Your task to perform on an android device: change the clock display to analog Image 0: 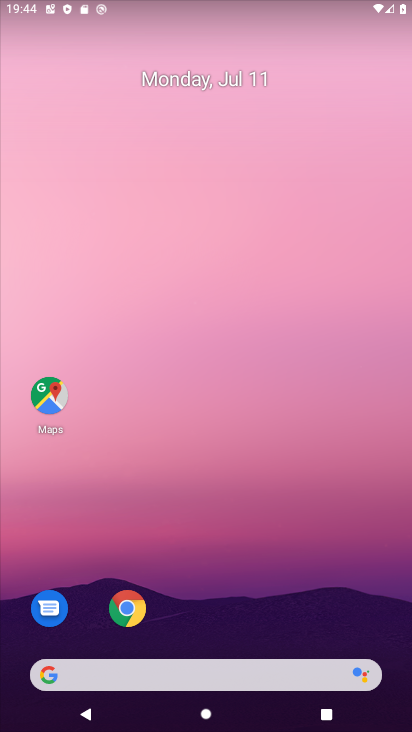
Step 0: drag from (248, 609) to (221, 191)
Your task to perform on an android device: change the clock display to analog Image 1: 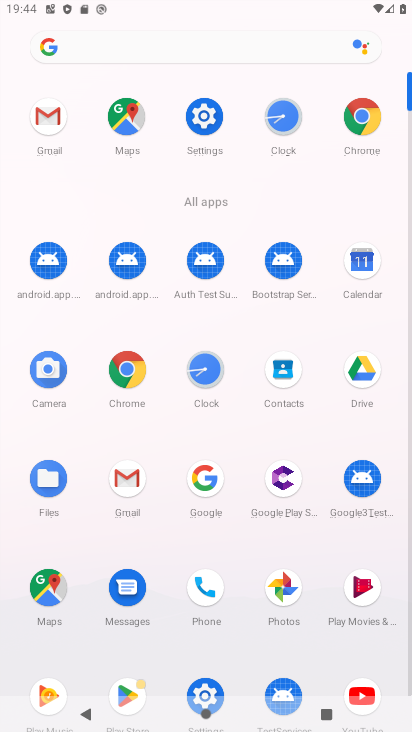
Step 1: click (291, 119)
Your task to perform on an android device: change the clock display to analog Image 2: 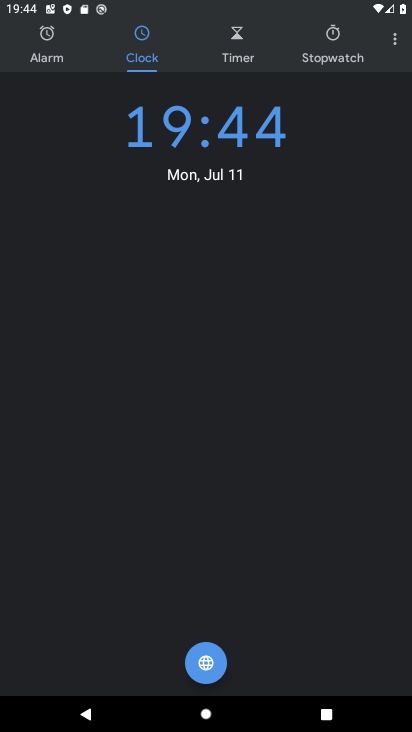
Step 2: click (386, 25)
Your task to perform on an android device: change the clock display to analog Image 3: 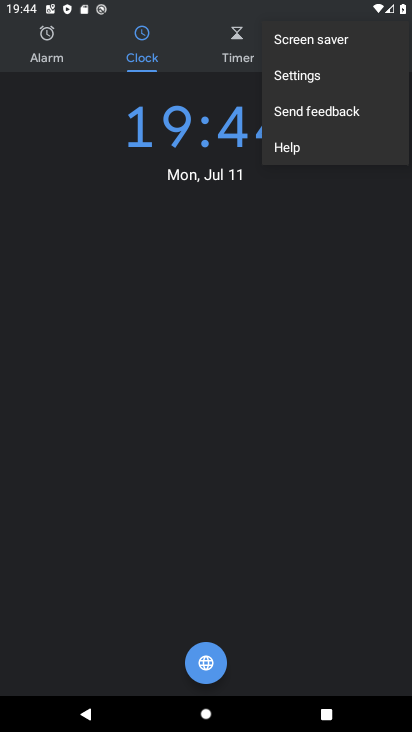
Step 3: click (307, 86)
Your task to perform on an android device: change the clock display to analog Image 4: 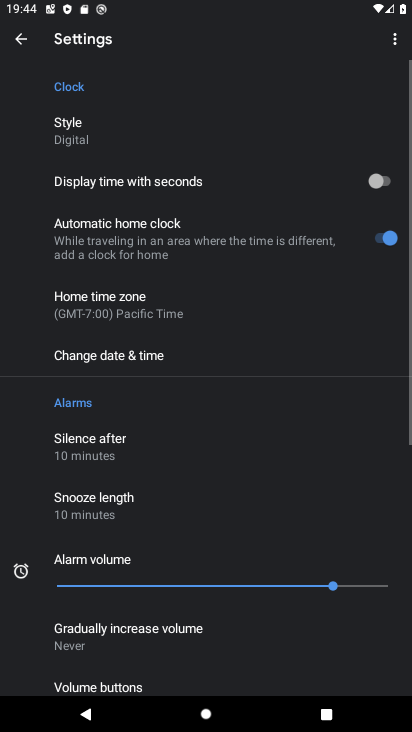
Step 4: click (78, 147)
Your task to perform on an android device: change the clock display to analog Image 5: 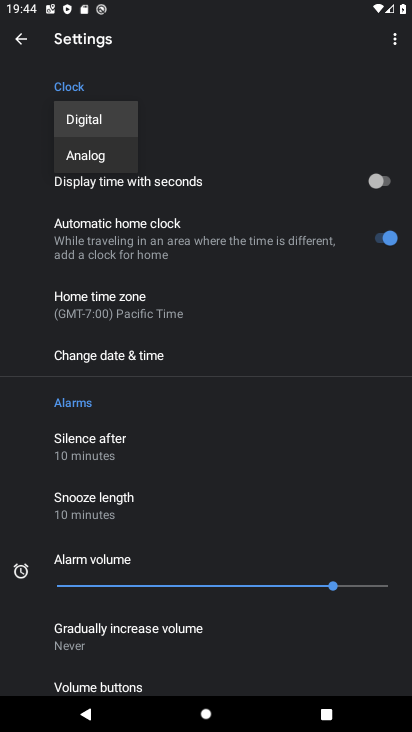
Step 5: click (110, 159)
Your task to perform on an android device: change the clock display to analog Image 6: 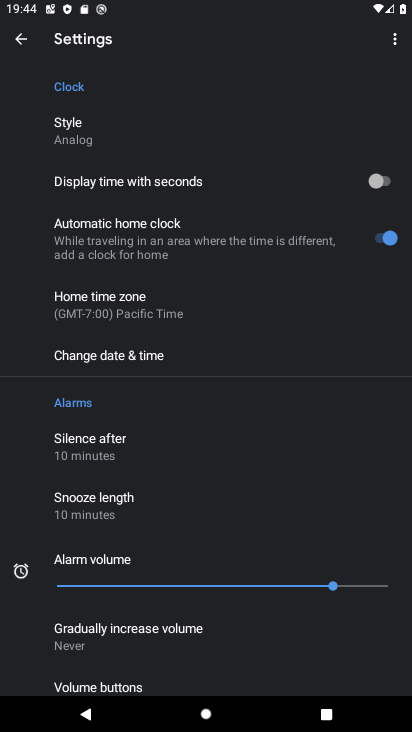
Step 6: task complete